Your task to perform on an android device: Search for sushi restaurants on Maps Image 0: 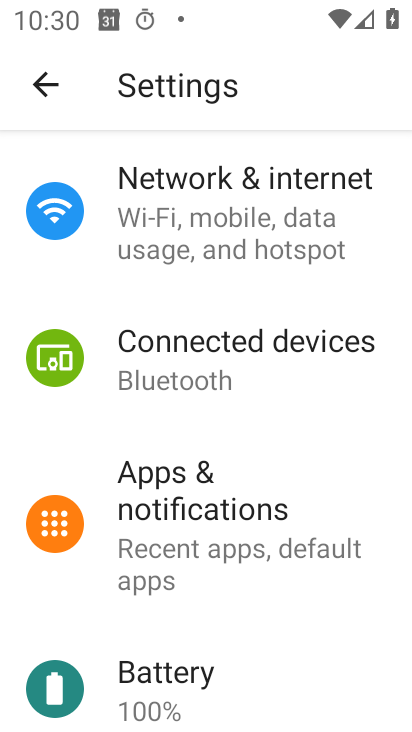
Step 0: press home button
Your task to perform on an android device: Search for sushi restaurants on Maps Image 1: 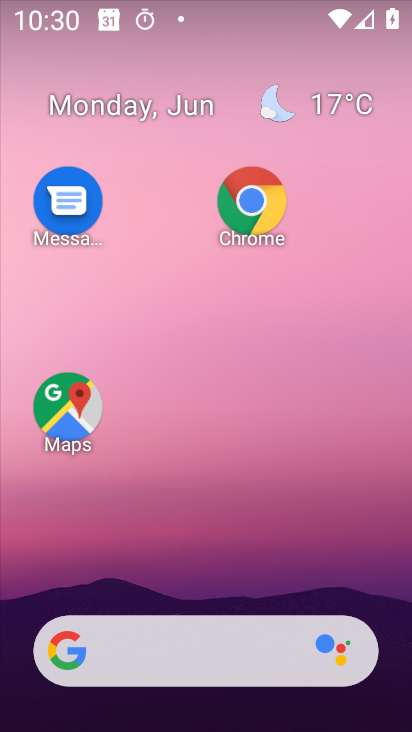
Step 1: drag from (228, 596) to (250, 13)
Your task to perform on an android device: Search for sushi restaurants on Maps Image 2: 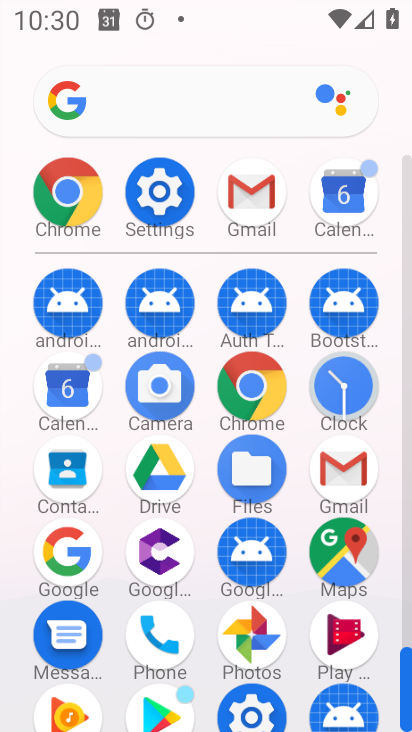
Step 2: click (350, 537)
Your task to perform on an android device: Search for sushi restaurants on Maps Image 3: 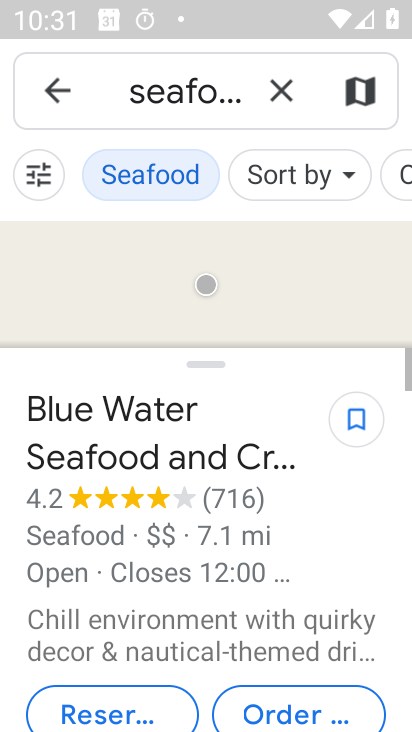
Step 3: click (271, 95)
Your task to perform on an android device: Search for sushi restaurants on Maps Image 4: 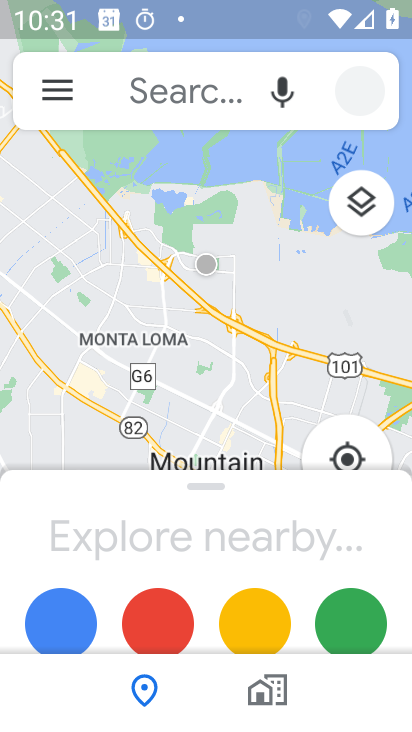
Step 4: click (214, 95)
Your task to perform on an android device: Search for sushi restaurants on Maps Image 5: 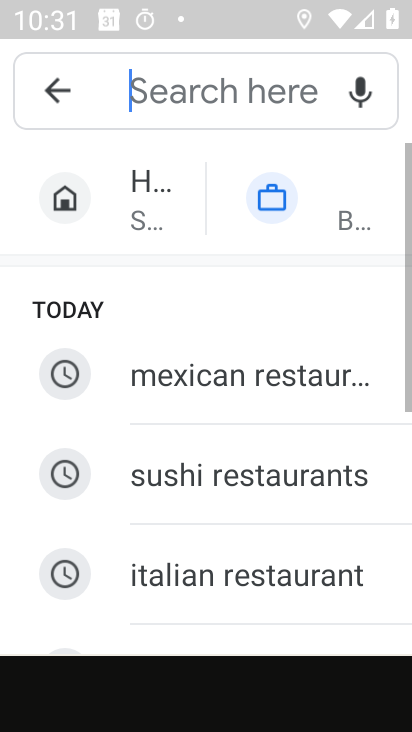
Step 5: click (214, 95)
Your task to perform on an android device: Search for sushi restaurants on Maps Image 6: 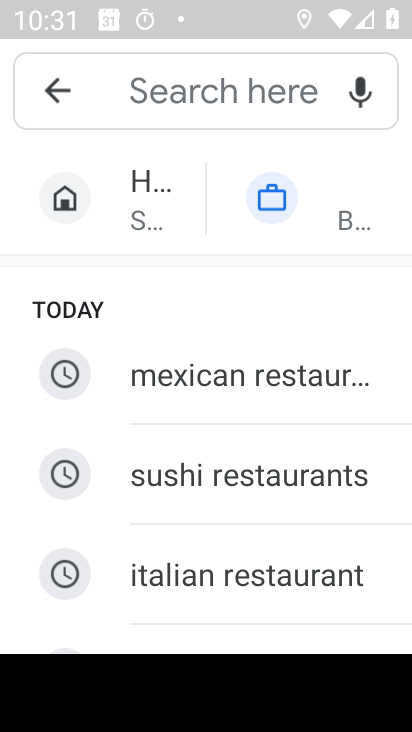
Step 6: click (207, 487)
Your task to perform on an android device: Search for sushi restaurants on Maps Image 7: 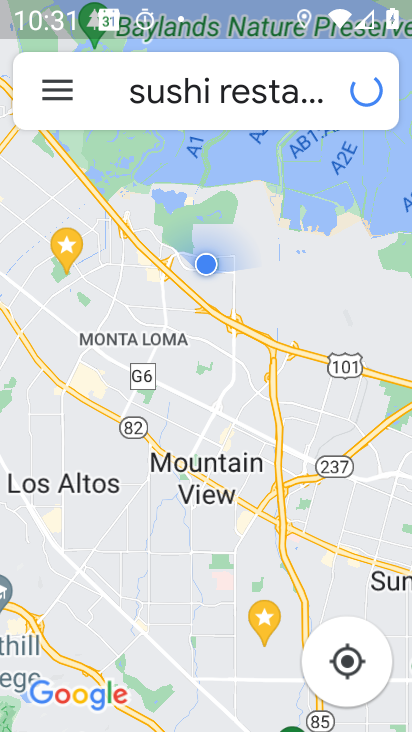
Step 7: task complete